Your task to perform on an android device: turn off smart reply in the gmail app Image 0: 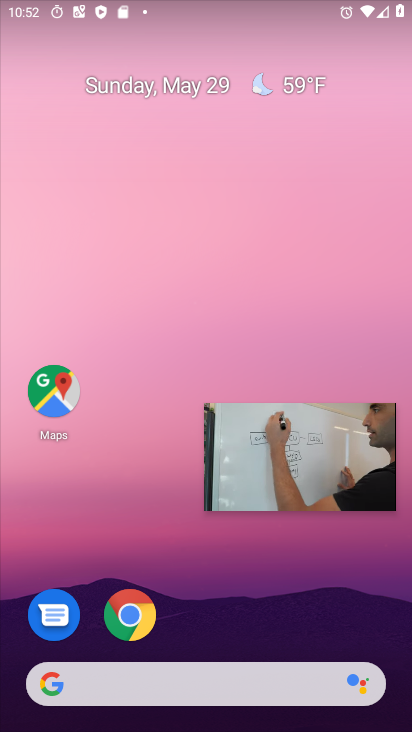
Step 0: click (343, 440)
Your task to perform on an android device: turn off smart reply in the gmail app Image 1: 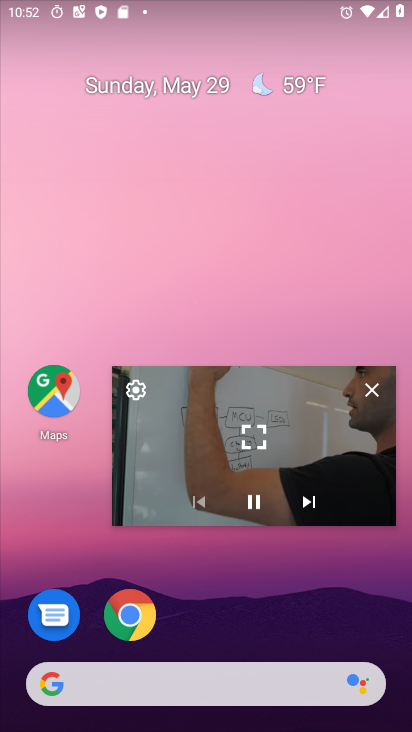
Step 1: click (372, 393)
Your task to perform on an android device: turn off smart reply in the gmail app Image 2: 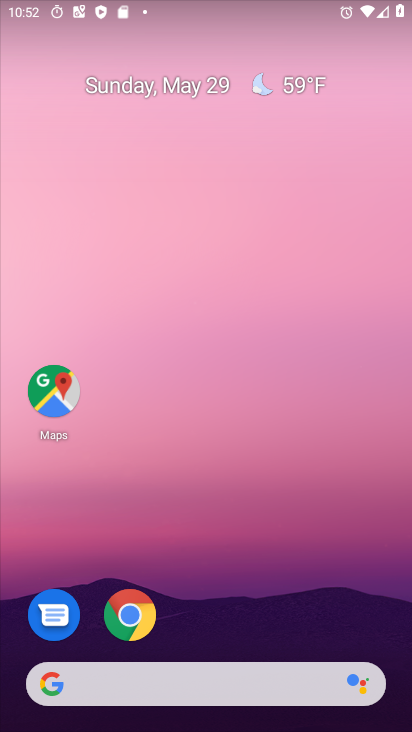
Step 2: drag from (255, 575) to (259, 41)
Your task to perform on an android device: turn off smart reply in the gmail app Image 3: 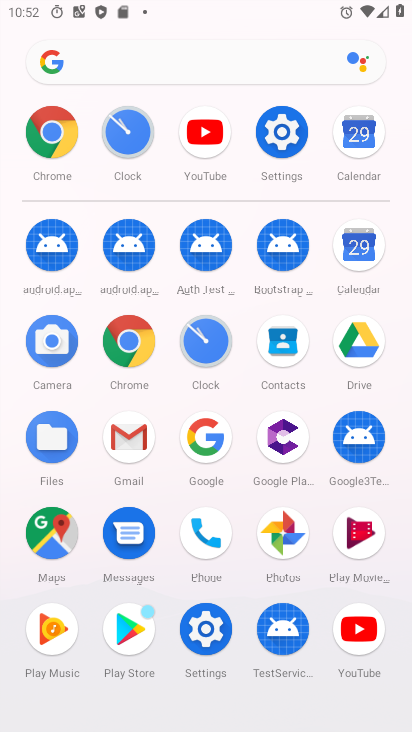
Step 3: click (134, 443)
Your task to perform on an android device: turn off smart reply in the gmail app Image 4: 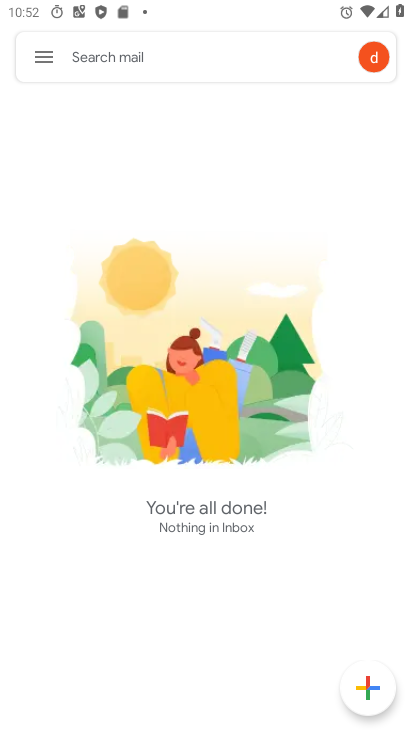
Step 4: click (43, 50)
Your task to perform on an android device: turn off smart reply in the gmail app Image 5: 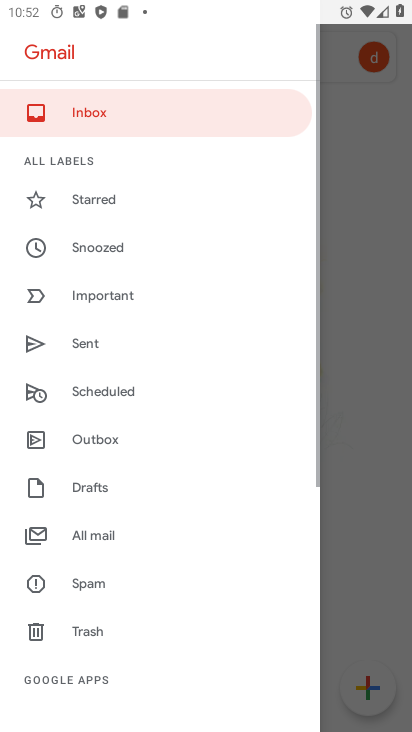
Step 5: drag from (141, 644) to (175, 105)
Your task to perform on an android device: turn off smart reply in the gmail app Image 6: 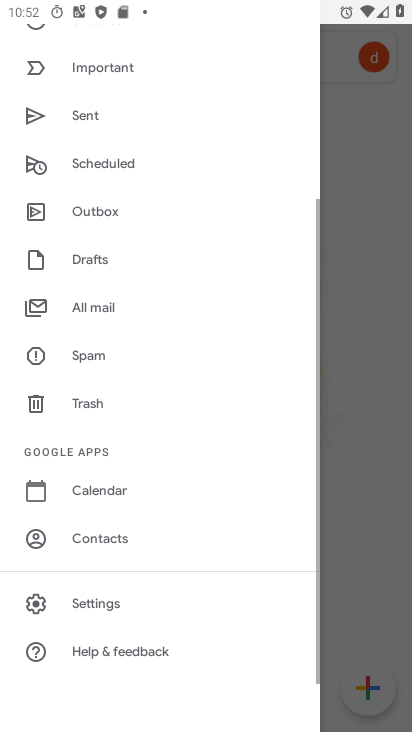
Step 6: click (106, 615)
Your task to perform on an android device: turn off smart reply in the gmail app Image 7: 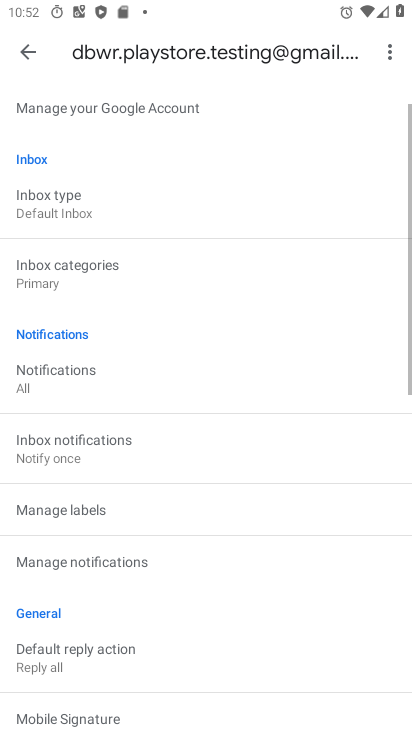
Step 7: drag from (132, 616) to (144, 275)
Your task to perform on an android device: turn off smart reply in the gmail app Image 8: 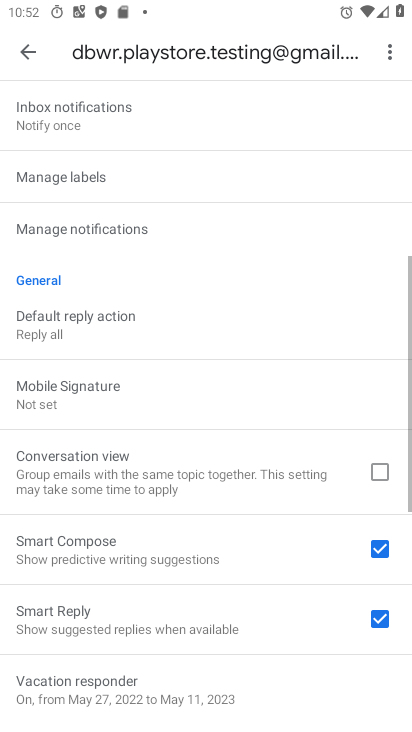
Step 8: drag from (151, 265) to (193, 174)
Your task to perform on an android device: turn off smart reply in the gmail app Image 9: 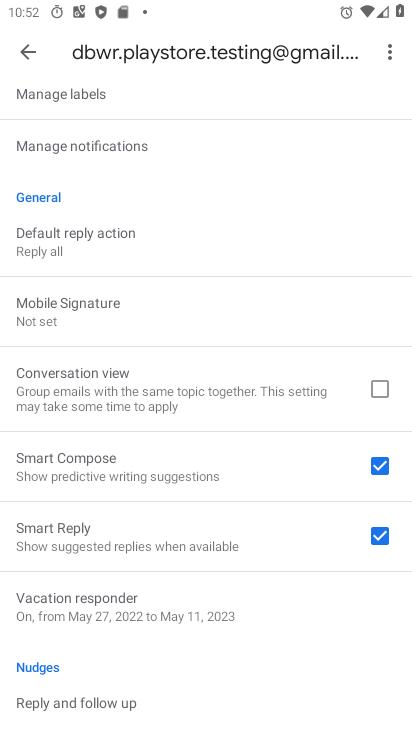
Step 9: click (382, 542)
Your task to perform on an android device: turn off smart reply in the gmail app Image 10: 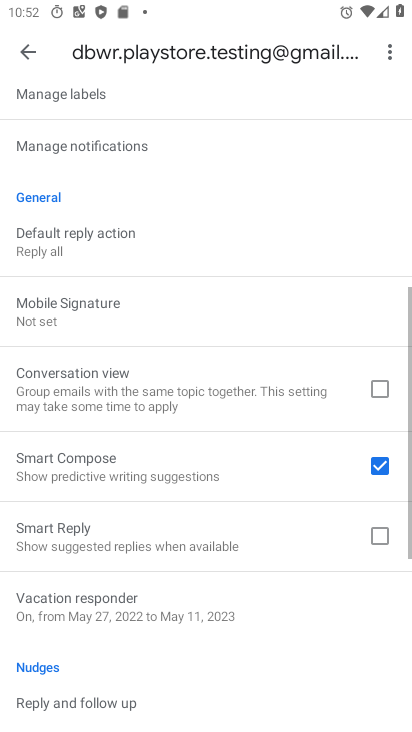
Step 10: task complete